Your task to perform on an android device: check android version Image 0: 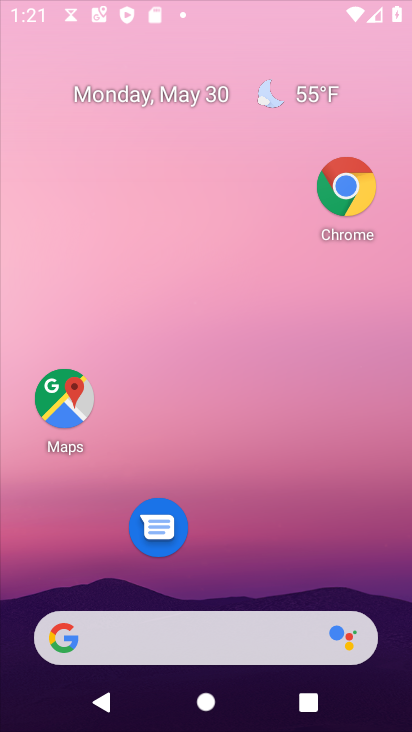
Step 0: click (139, 51)
Your task to perform on an android device: check android version Image 1: 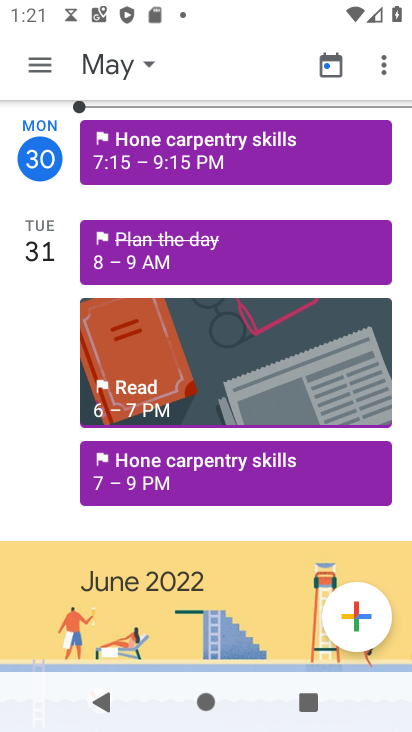
Step 1: drag from (216, 497) to (216, 150)
Your task to perform on an android device: check android version Image 2: 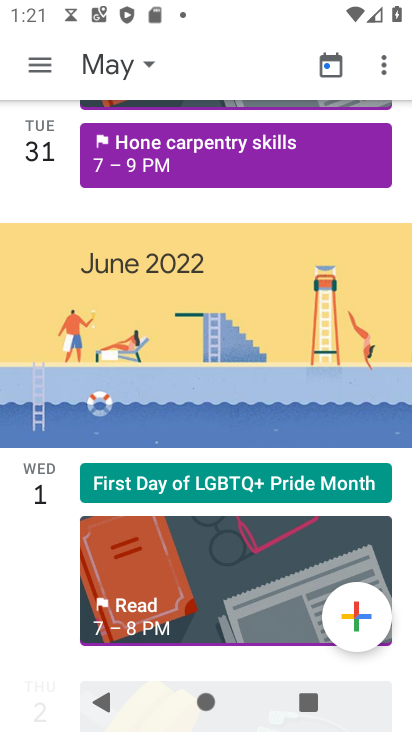
Step 2: press home button
Your task to perform on an android device: check android version Image 3: 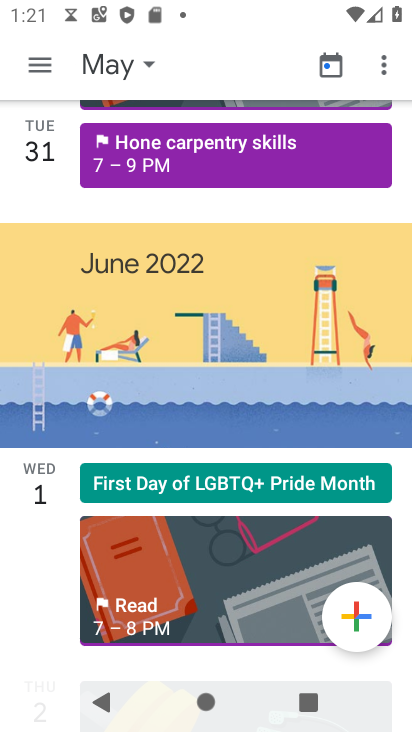
Step 3: drag from (262, 576) to (265, 171)
Your task to perform on an android device: check android version Image 4: 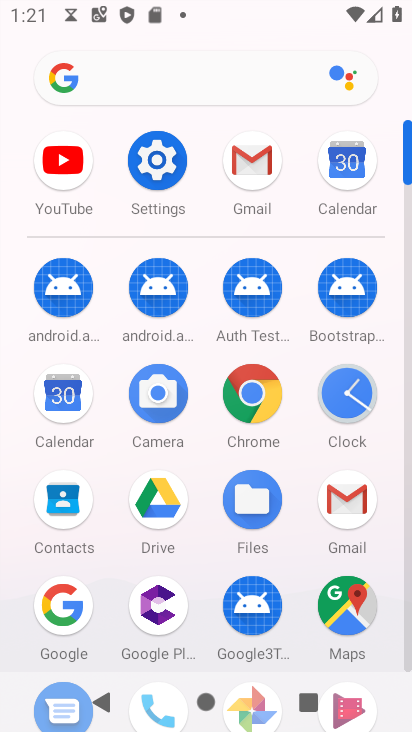
Step 4: click (155, 169)
Your task to perform on an android device: check android version Image 5: 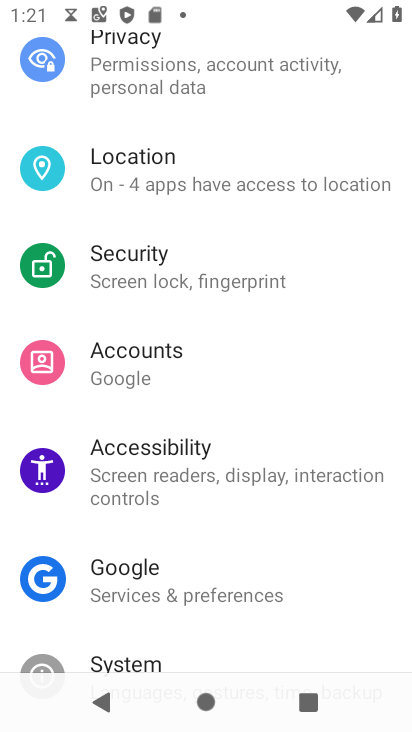
Step 5: drag from (182, 637) to (192, 190)
Your task to perform on an android device: check android version Image 6: 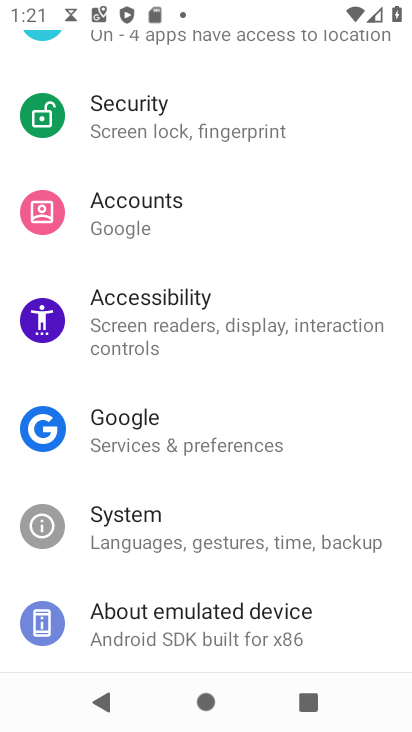
Step 6: drag from (230, 576) to (272, 23)
Your task to perform on an android device: check android version Image 7: 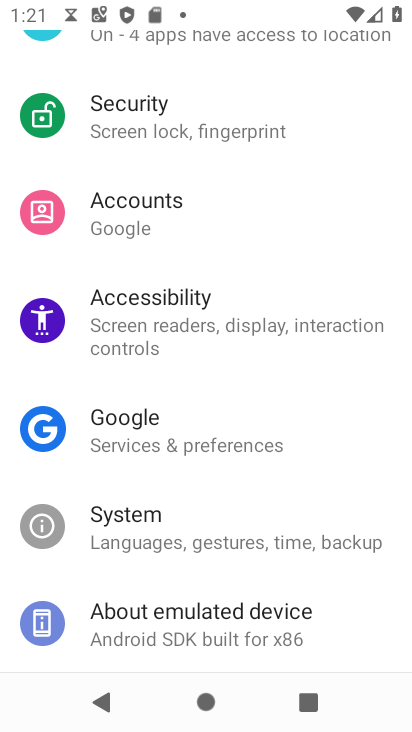
Step 7: click (176, 625)
Your task to perform on an android device: check android version Image 8: 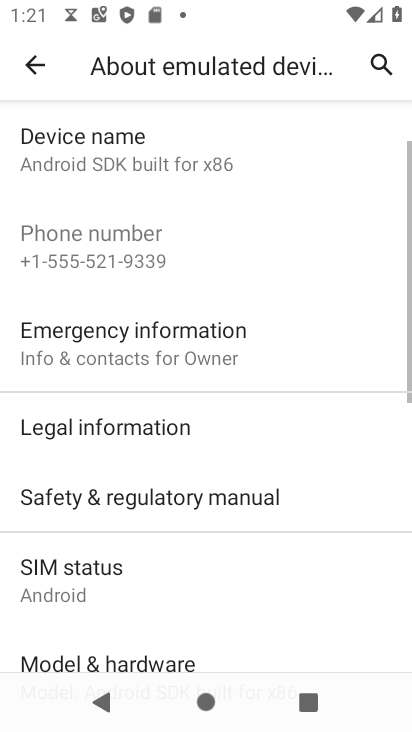
Step 8: drag from (197, 521) to (234, 209)
Your task to perform on an android device: check android version Image 9: 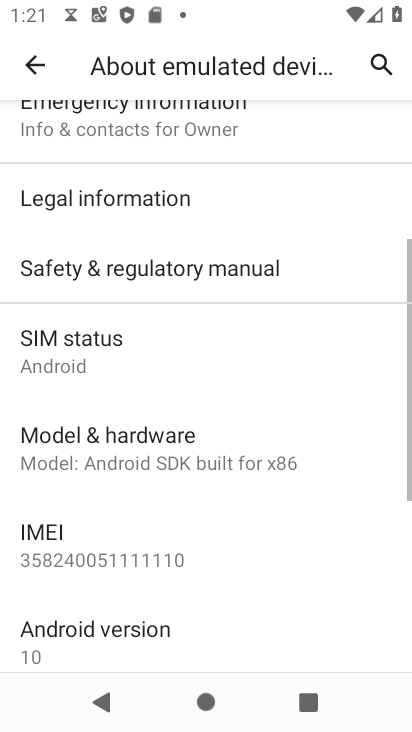
Step 9: drag from (204, 591) to (280, 186)
Your task to perform on an android device: check android version Image 10: 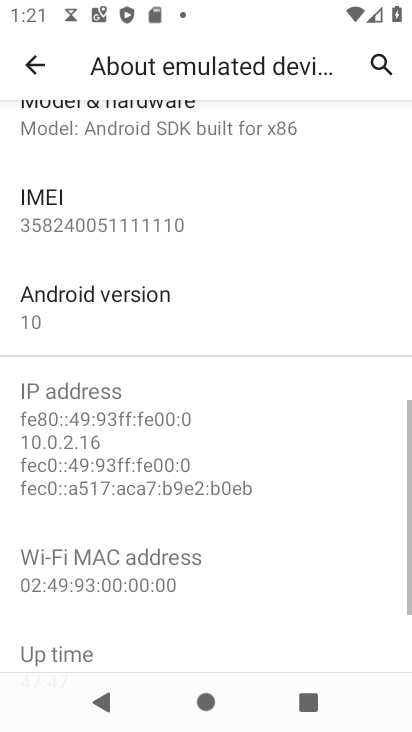
Step 10: click (174, 282)
Your task to perform on an android device: check android version Image 11: 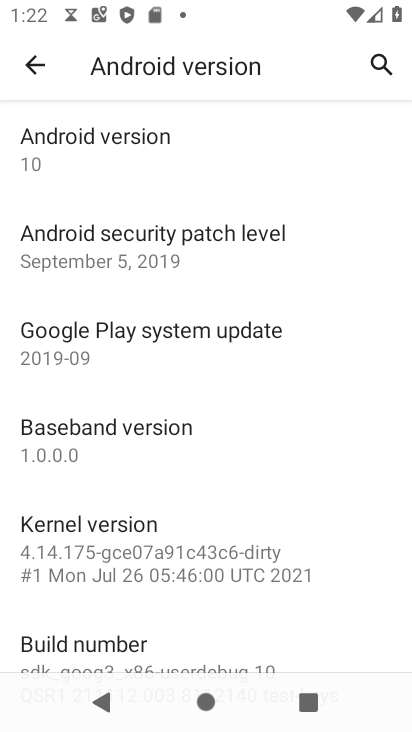
Step 11: click (172, 148)
Your task to perform on an android device: check android version Image 12: 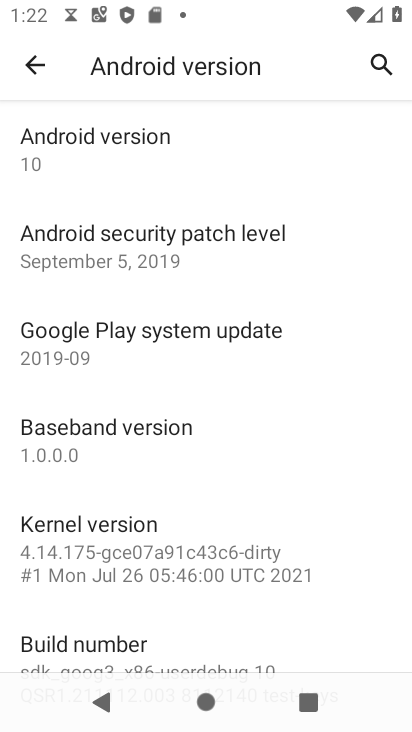
Step 12: task complete